Your task to perform on an android device: Show me the alarms in the clock app Image 0: 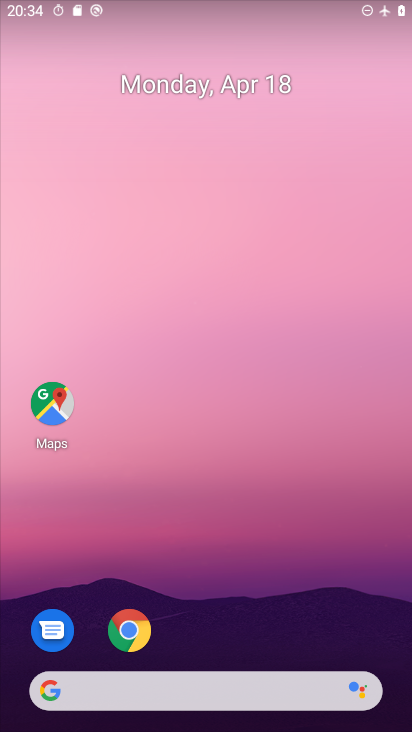
Step 0: drag from (257, 486) to (332, 212)
Your task to perform on an android device: Show me the alarms in the clock app Image 1: 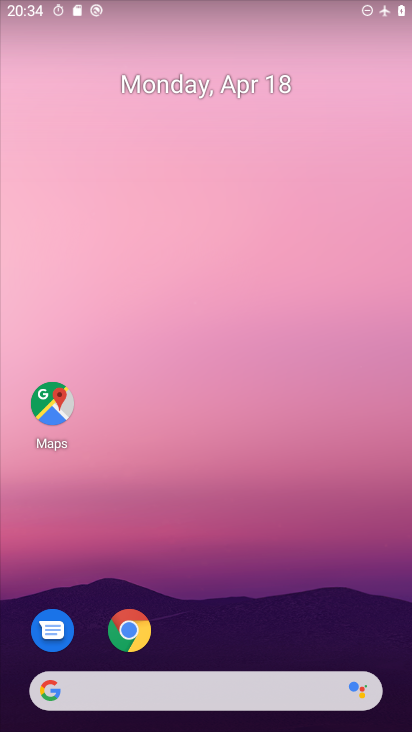
Step 1: drag from (208, 450) to (253, 306)
Your task to perform on an android device: Show me the alarms in the clock app Image 2: 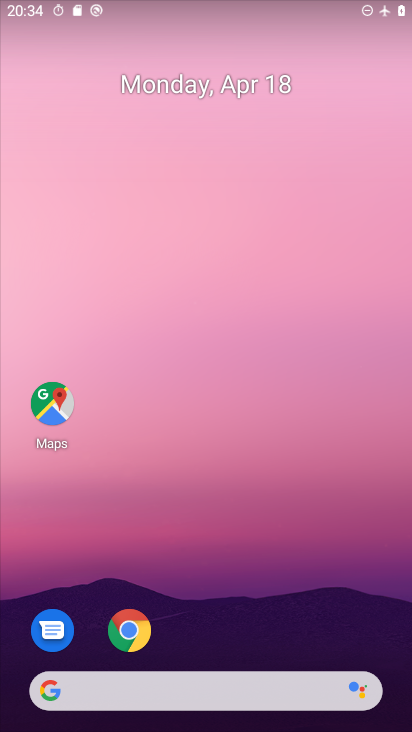
Step 2: drag from (242, 655) to (329, 4)
Your task to perform on an android device: Show me the alarms in the clock app Image 3: 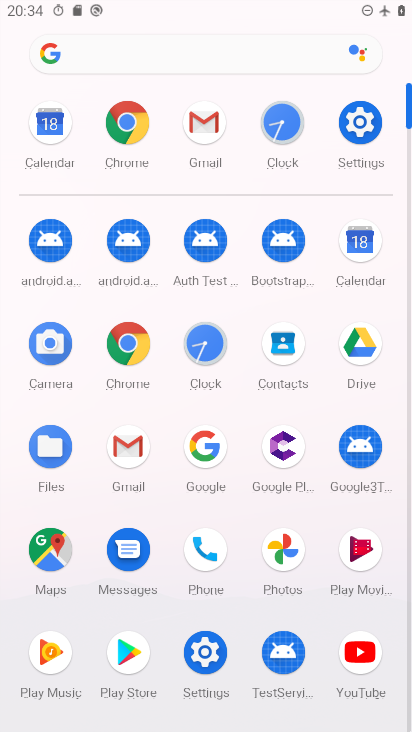
Step 3: click (283, 134)
Your task to perform on an android device: Show me the alarms in the clock app Image 4: 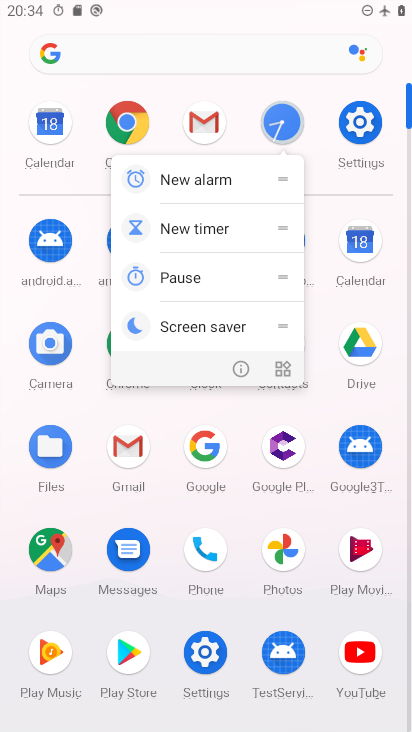
Step 4: click (280, 122)
Your task to perform on an android device: Show me the alarms in the clock app Image 5: 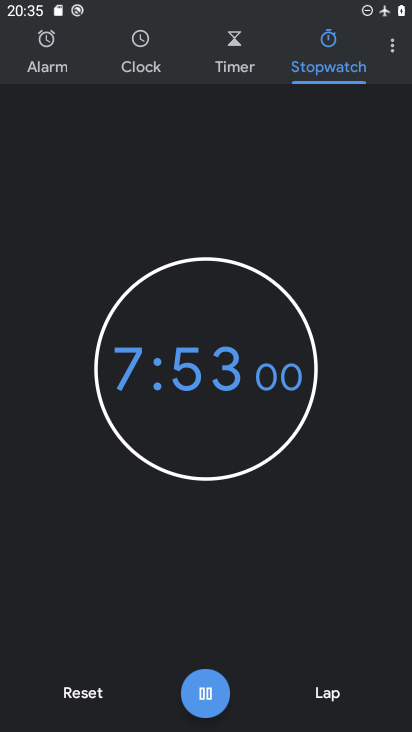
Step 5: click (83, 692)
Your task to perform on an android device: Show me the alarms in the clock app Image 6: 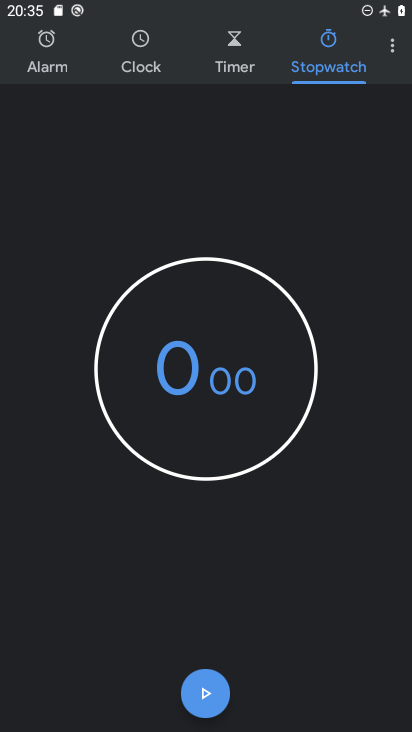
Step 6: click (52, 52)
Your task to perform on an android device: Show me the alarms in the clock app Image 7: 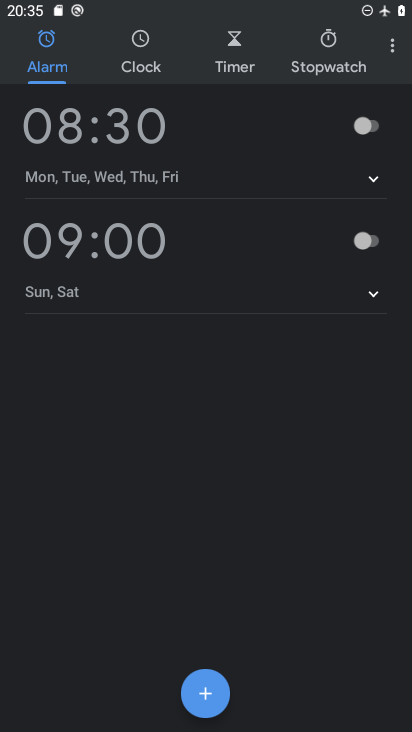
Step 7: task complete